Your task to perform on an android device: turn off improve location accuracy Image 0: 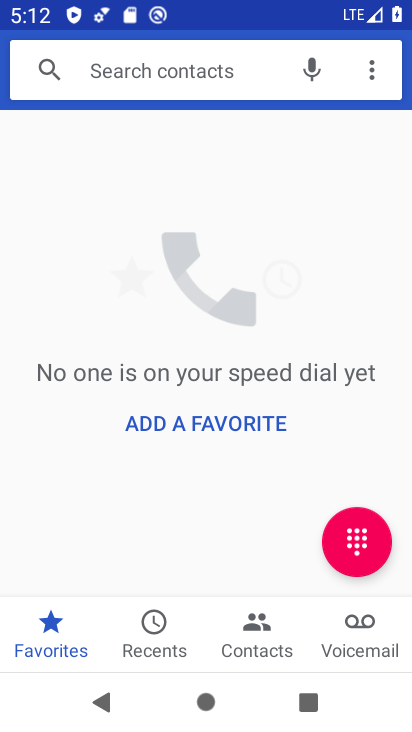
Step 0: press home button
Your task to perform on an android device: turn off improve location accuracy Image 1: 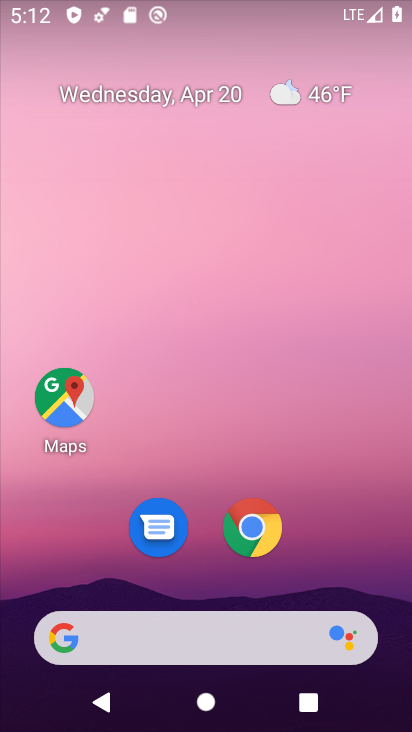
Step 1: drag from (318, 558) to (262, 0)
Your task to perform on an android device: turn off improve location accuracy Image 2: 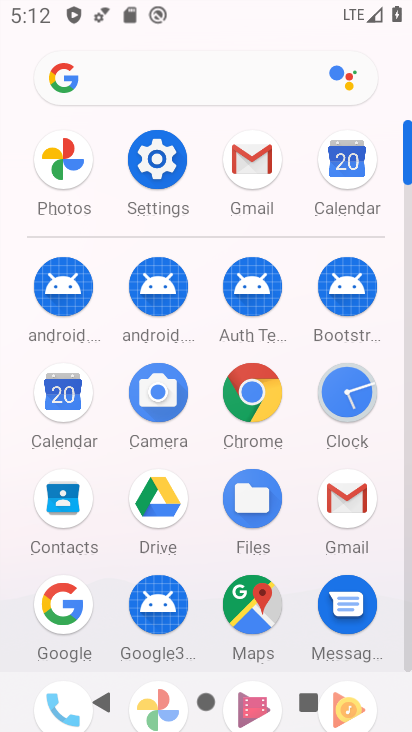
Step 2: click (151, 164)
Your task to perform on an android device: turn off improve location accuracy Image 3: 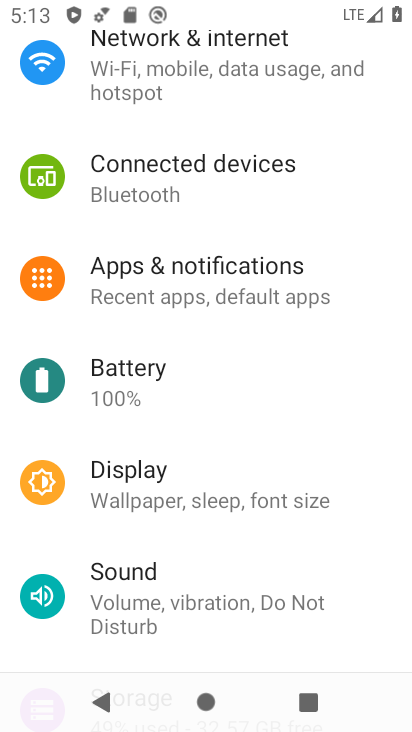
Step 3: drag from (207, 543) to (221, 97)
Your task to perform on an android device: turn off improve location accuracy Image 4: 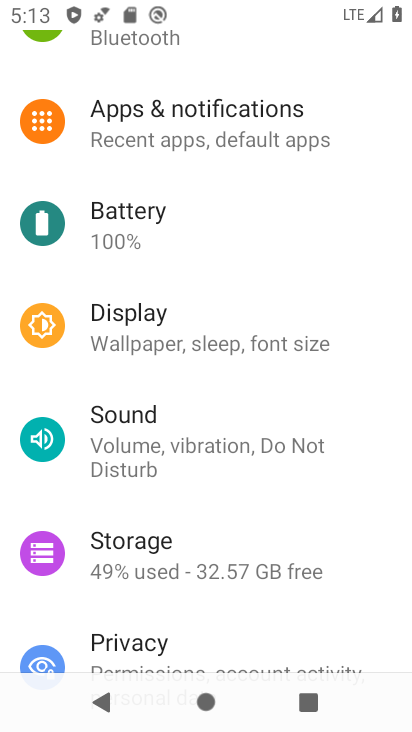
Step 4: drag from (189, 548) to (192, 167)
Your task to perform on an android device: turn off improve location accuracy Image 5: 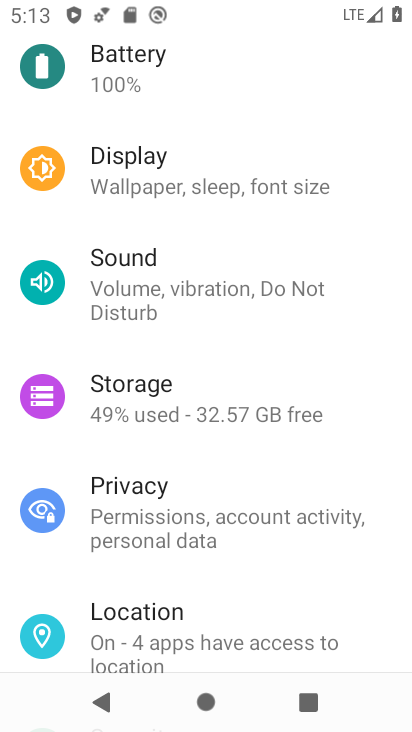
Step 5: click (147, 617)
Your task to perform on an android device: turn off improve location accuracy Image 6: 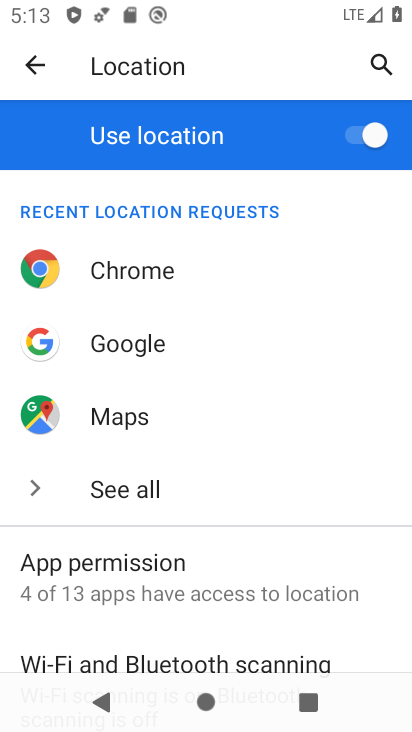
Step 6: drag from (180, 594) to (219, 230)
Your task to perform on an android device: turn off improve location accuracy Image 7: 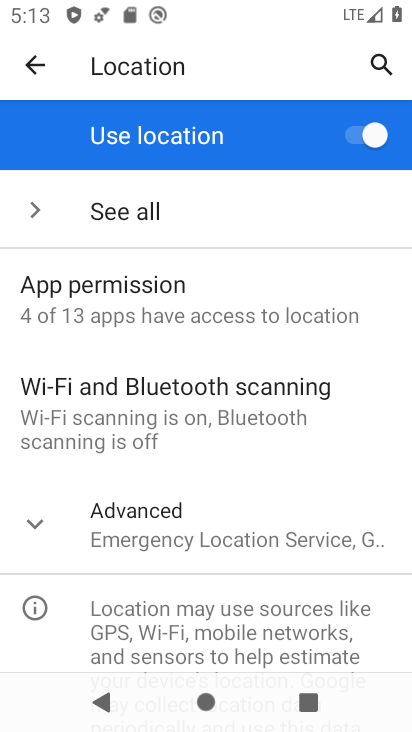
Step 7: click (186, 523)
Your task to perform on an android device: turn off improve location accuracy Image 8: 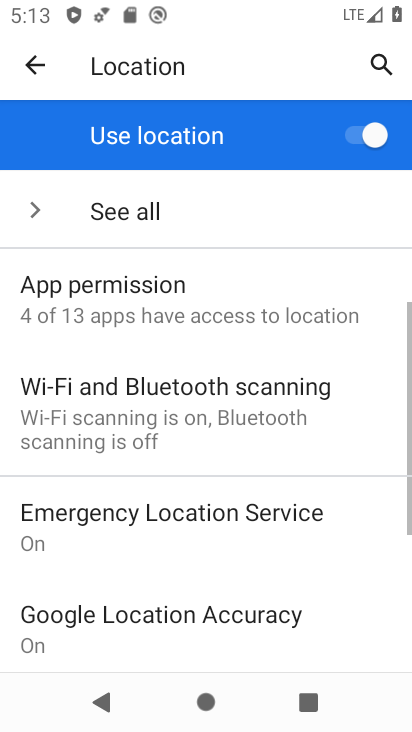
Step 8: drag from (179, 573) to (198, 258)
Your task to perform on an android device: turn off improve location accuracy Image 9: 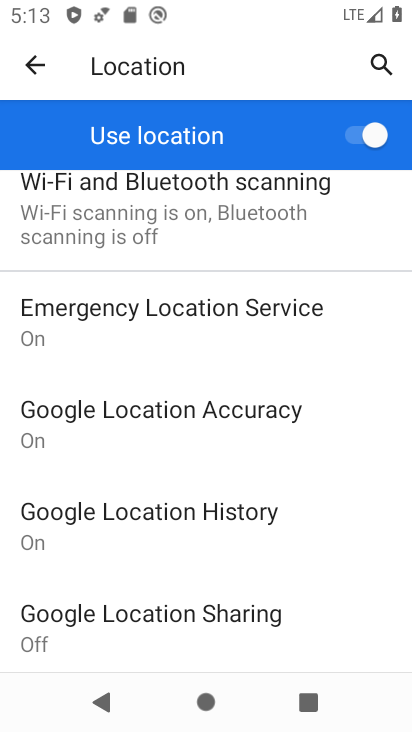
Step 9: click (206, 425)
Your task to perform on an android device: turn off improve location accuracy Image 10: 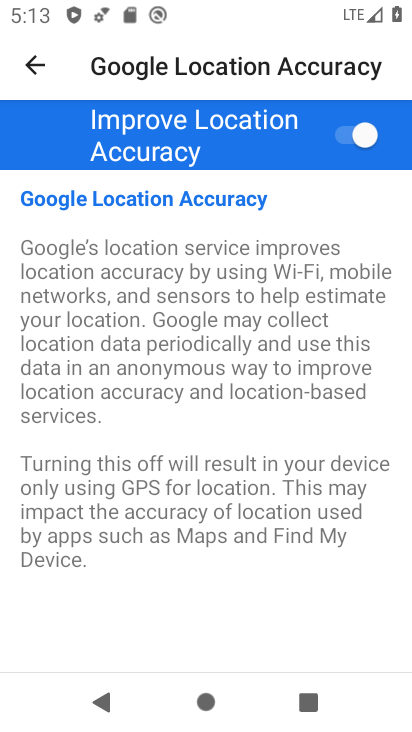
Step 10: click (346, 128)
Your task to perform on an android device: turn off improve location accuracy Image 11: 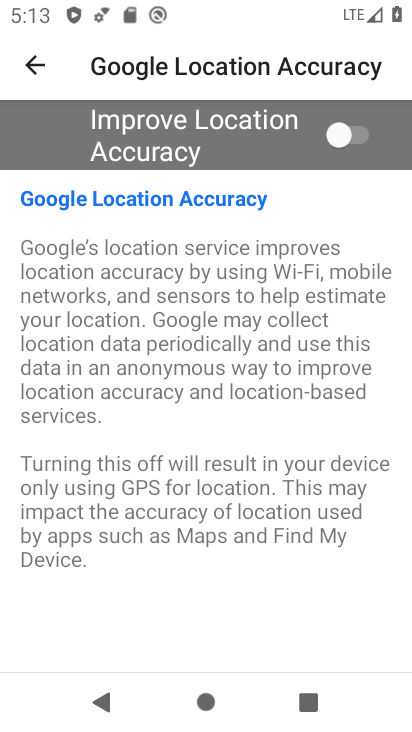
Step 11: task complete